Your task to perform on an android device: Go to Yahoo.com Image 0: 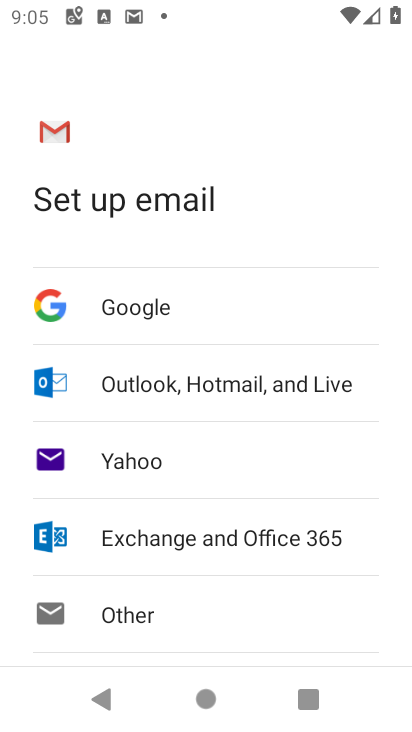
Step 0: press home button
Your task to perform on an android device: Go to Yahoo.com Image 1: 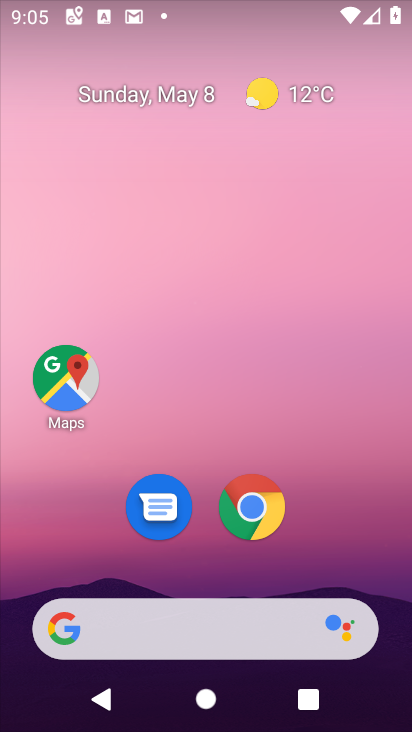
Step 1: click (153, 631)
Your task to perform on an android device: Go to Yahoo.com Image 2: 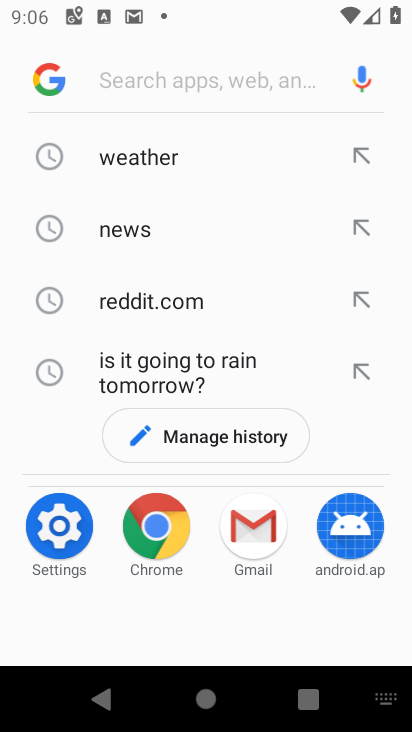
Step 2: type "yahoo.com"
Your task to perform on an android device: Go to Yahoo.com Image 3: 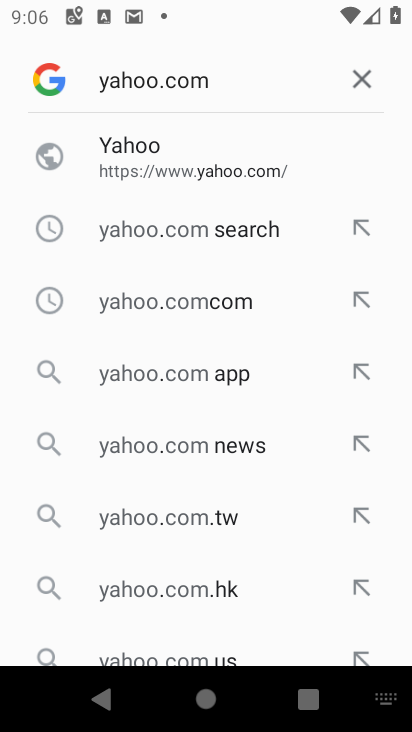
Step 3: click (210, 189)
Your task to perform on an android device: Go to Yahoo.com Image 4: 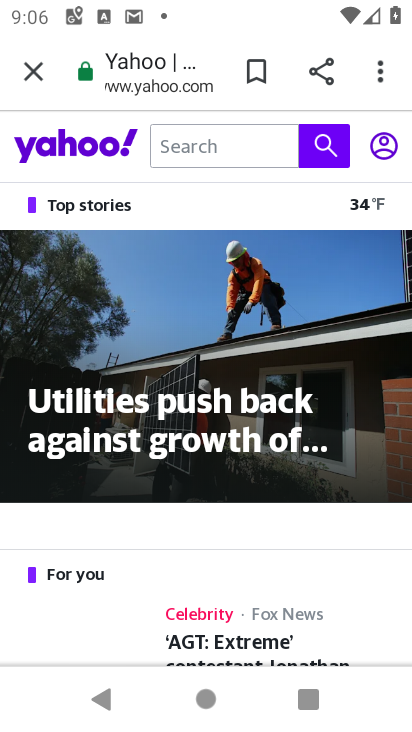
Step 4: task complete